Your task to perform on an android device: Go to network settings Image 0: 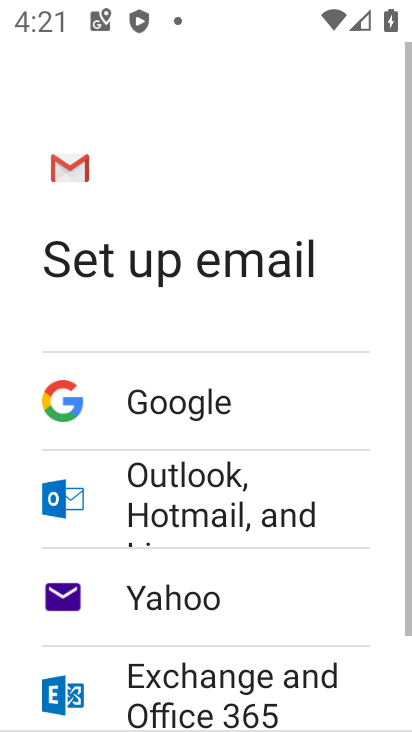
Step 0: press home button
Your task to perform on an android device: Go to network settings Image 1: 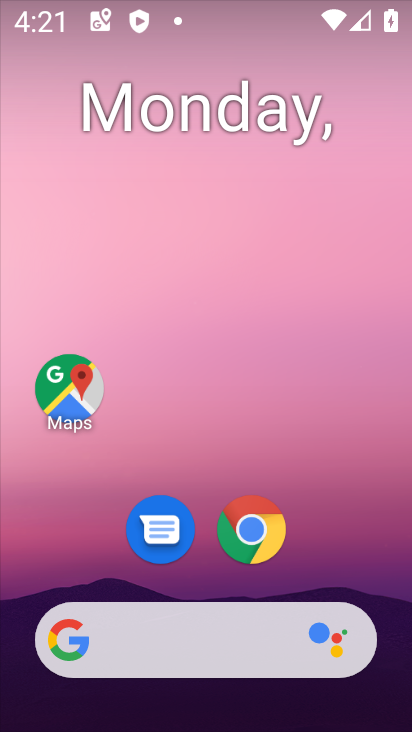
Step 1: drag from (188, 620) to (190, 174)
Your task to perform on an android device: Go to network settings Image 2: 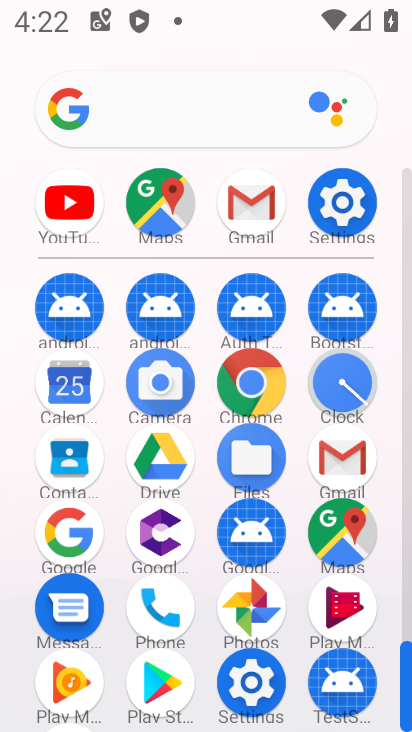
Step 2: click (363, 210)
Your task to perform on an android device: Go to network settings Image 3: 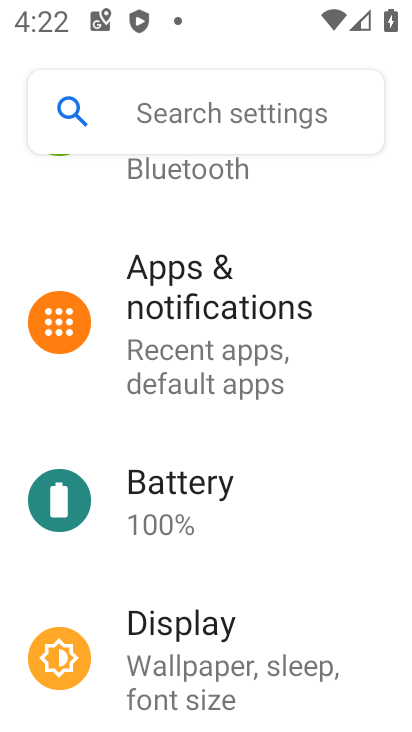
Step 3: drag from (280, 238) to (249, 673)
Your task to perform on an android device: Go to network settings Image 4: 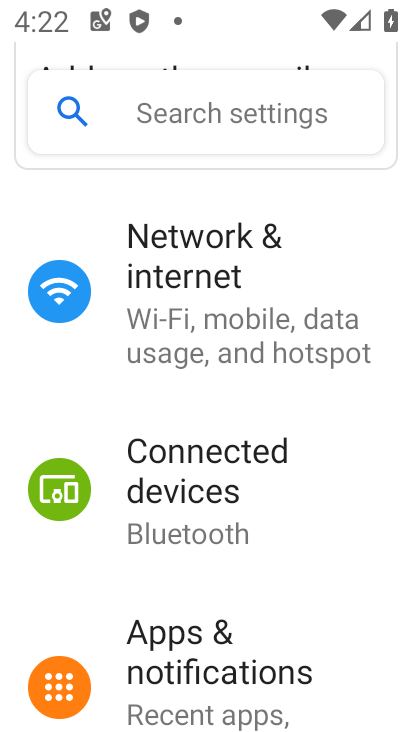
Step 4: click (186, 340)
Your task to perform on an android device: Go to network settings Image 5: 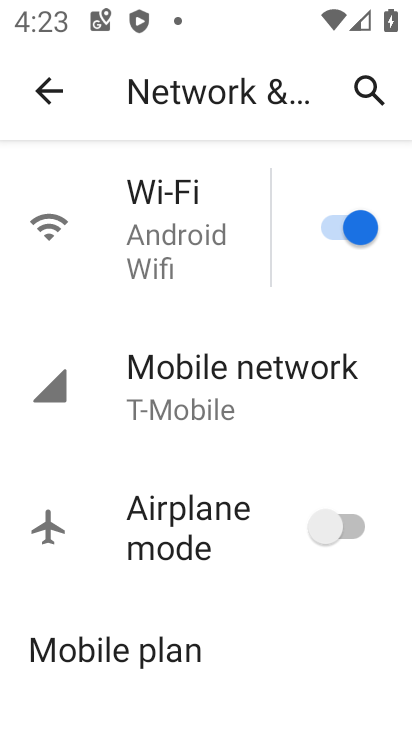
Step 5: click (176, 377)
Your task to perform on an android device: Go to network settings Image 6: 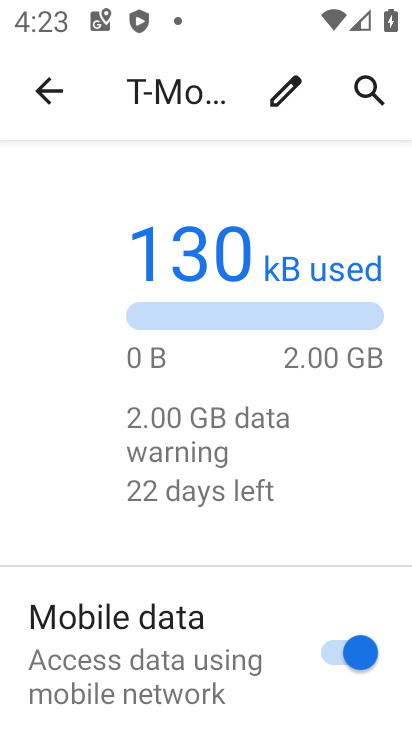
Step 6: task complete